Your task to perform on an android device: Go to network settings Image 0: 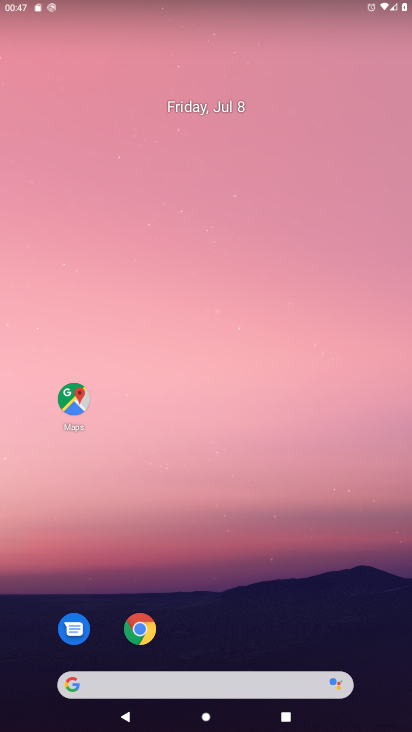
Step 0: drag from (245, 622) to (329, 25)
Your task to perform on an android device: Go to network settings Image 1: 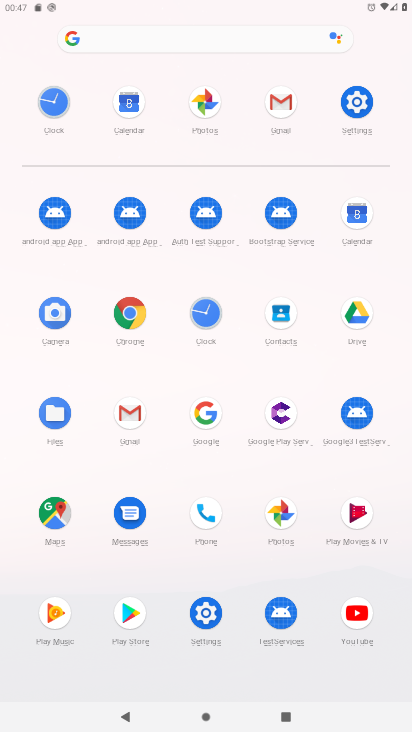
Step 1: click (363, 99)
Your task to perform on an android device: Go to network settings Image 2: 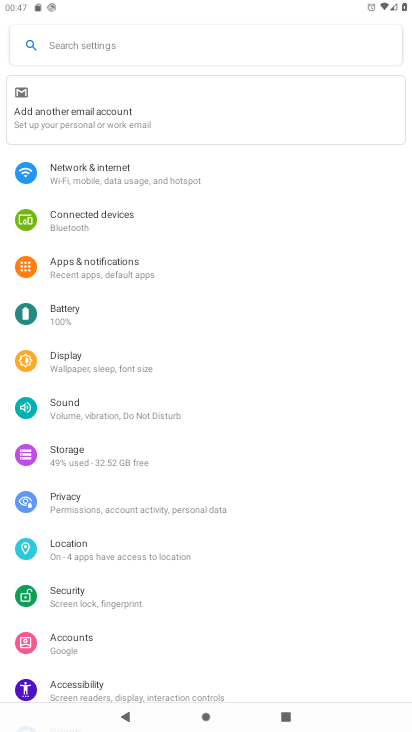
Step 2: click (174, 173)
Your task to perform on an android device: Go to network settings Image 3: 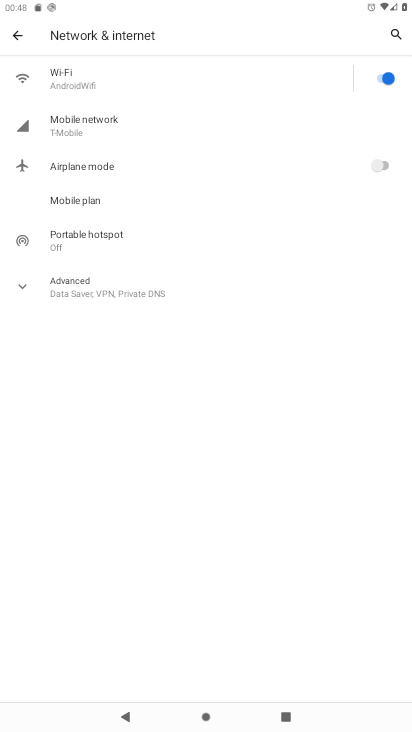
Step 3: click (115, 127)
Your task to perform on an android device: Go to network settings Image 4: 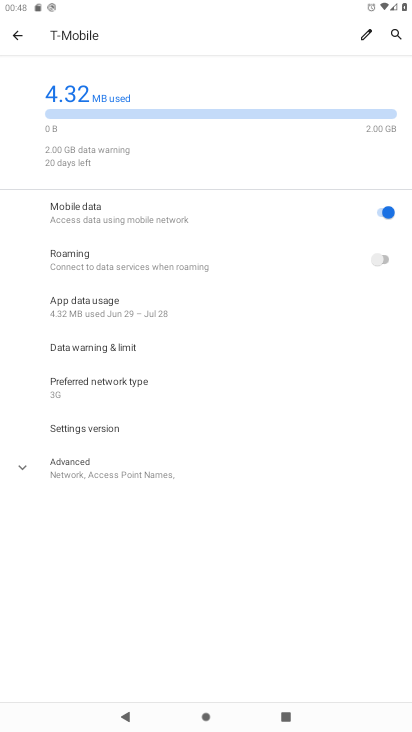
Step 4: task complete